Your task to perform on an android device: create a new album in the google photos Image 0: 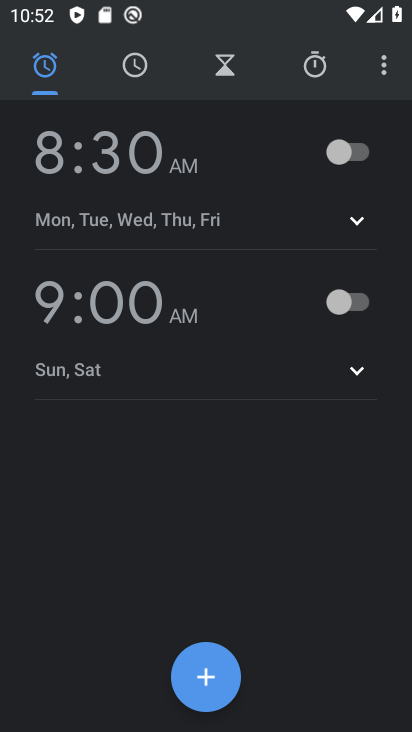
Step 0: press back button
Your task to perform on an android device: create a new album in the google photos Image 1: 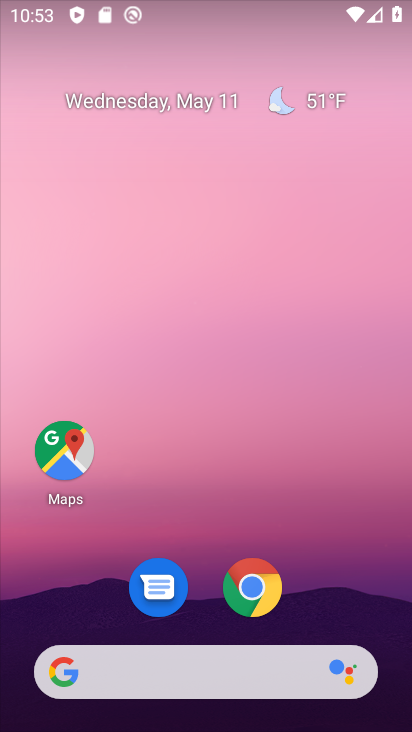
Step 1: drag from (203, 628) to (269, 109)
Your task to perform on an android device: create a new album in the google photos Image 2: 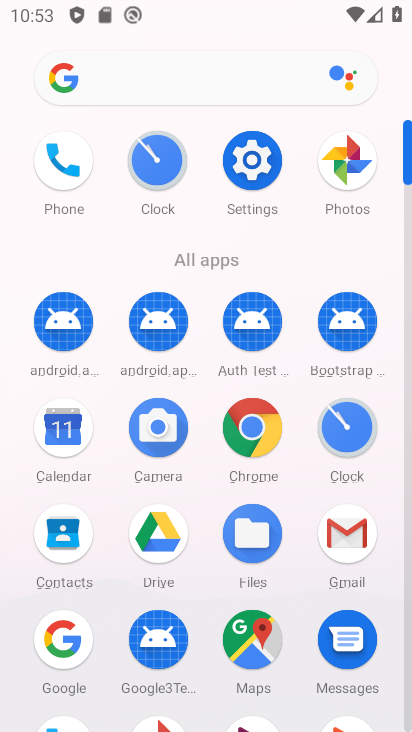
Step 2: drag from (220, 620) to (260, 575)
Your task to perform on an android device: create a new album in the google photos Image 3: 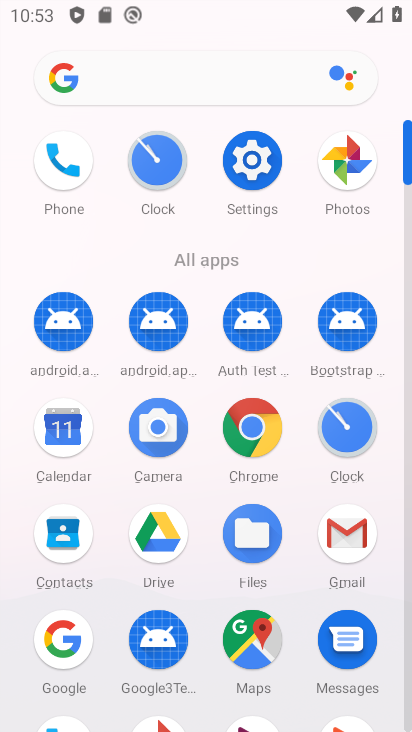
Step 3: click (350, 198)
Your task to perform on an android device: create a new album in the google photos Image 4: 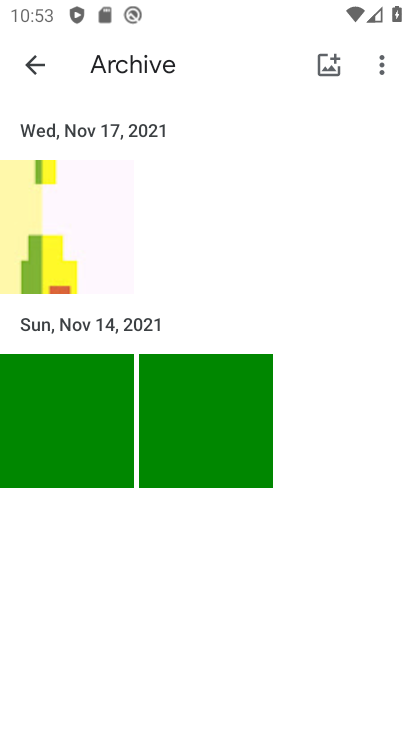
Step 4: click (34, 60)
Your task to perform on an android device: create a new album in the google photos Image 5: 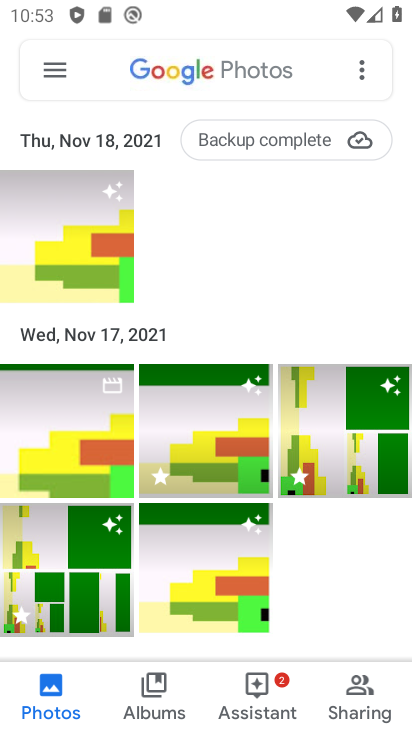
Step 5: click (362, 64)
Your task to perform on an android device: create a new album in the google photos Image 6: 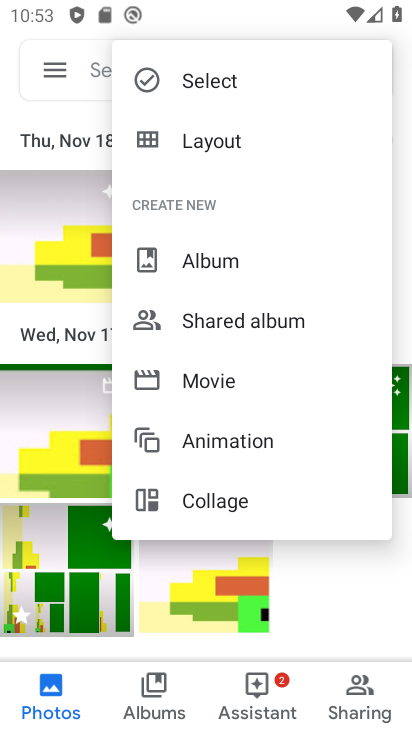
Step 6: click (195, 259)
Your task to perform on an android device: create a new album in the google photos Image 7: 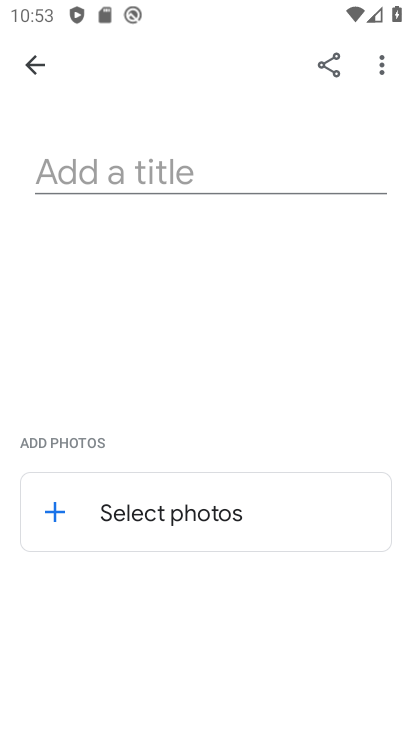
Step 7: click (96, 172)
Your task to perform on an android device: create a new album in the google photos Image 8: 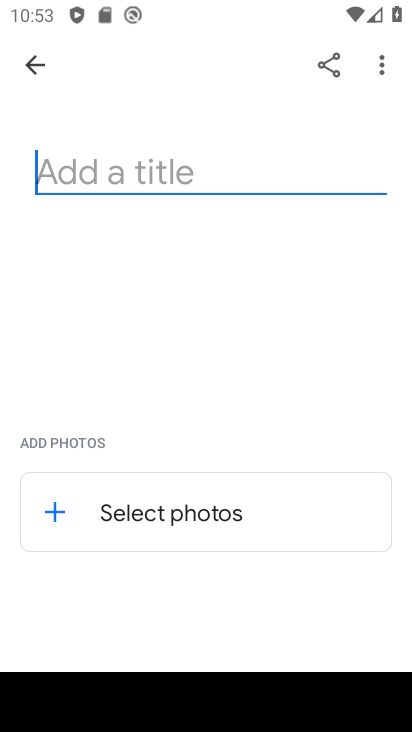
Step 8: type "vff"
Your task to perform on an android device: create a new album in the google photos Image 9: 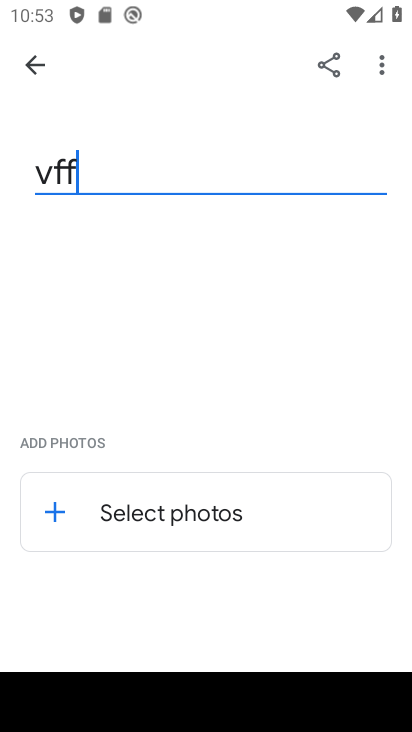
Step 9: click (140, 507)
Your task to perform on an android device: create a new album in the google photos Image 10: 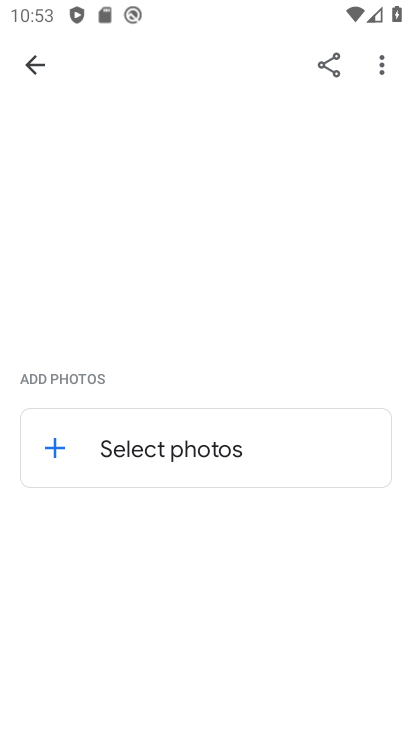
Step 10: click (156, 451)
Your task to perform on an android device: create a new album in the google photos Image 11: 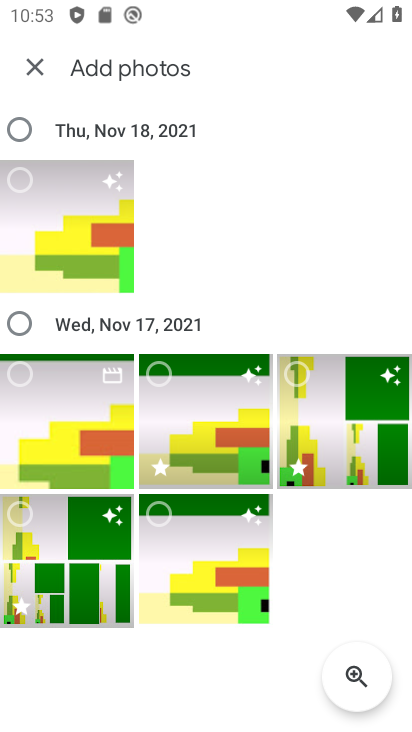
Step 11: click (12, 113)
Your task to perform on an android device: create a new album in the google photos Image 12: 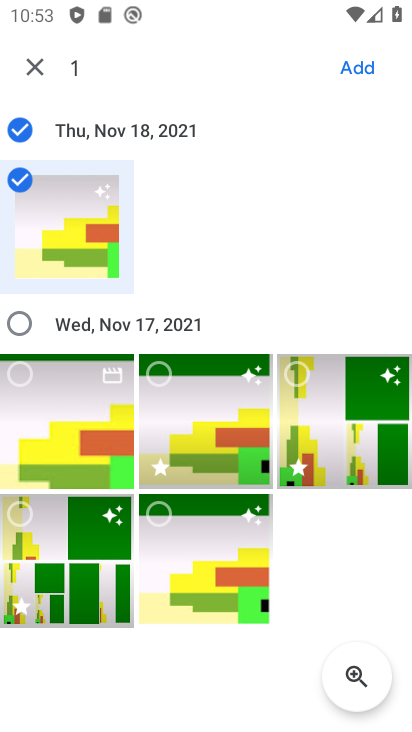
Step 12: click (374, 69)
Your task to perform on an android device: create a new album in the google photos Image 13: 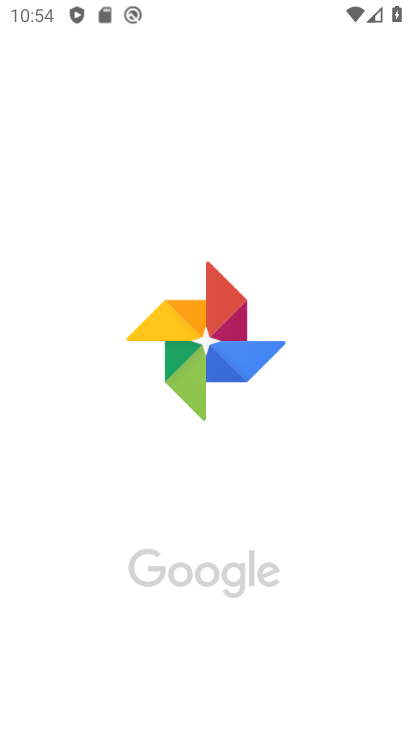
Step 13: task complete